Your task to perform on an android device: Check the news Image 0: 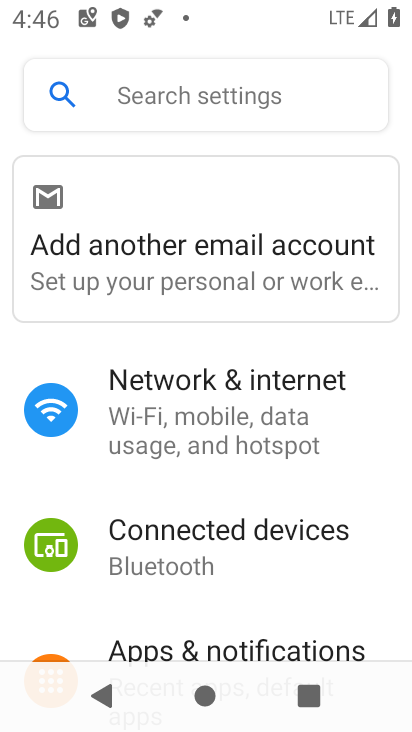
Step 0: press back button
Your task to perform on an android device: Check the news Image 1: 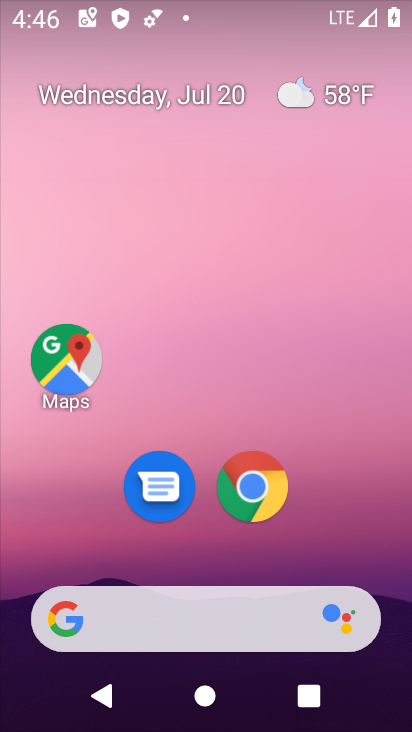
Step 1: click (192, 618)
Your task to perform on an android device: Check the news Image 2: 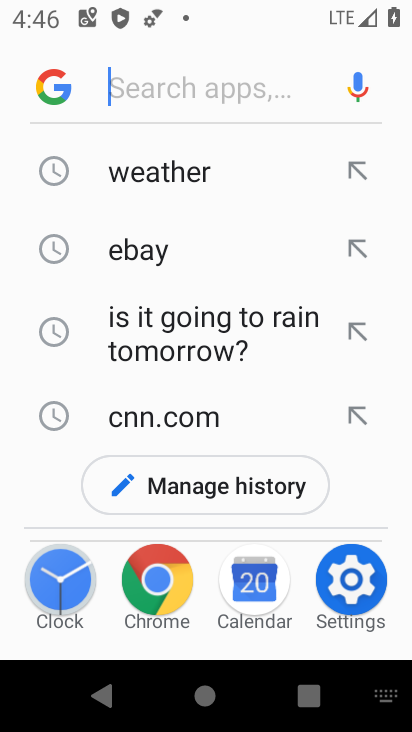
Step 2: click (121, 87)
Your task to perform on an android device: Check the news Image 3: 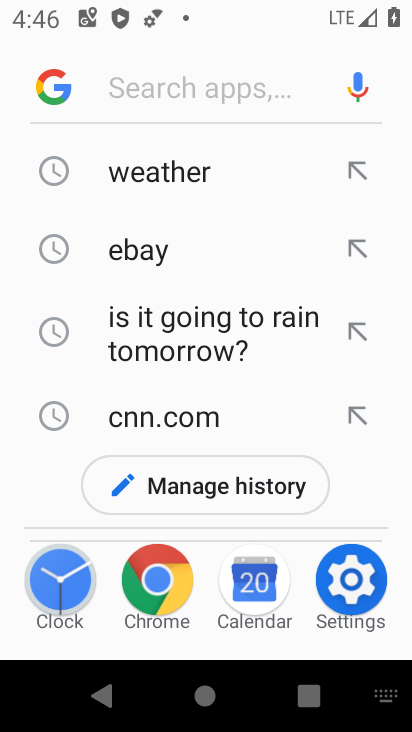
Step 3: type "news"
Your task to perform on an android device: Check the news Image 4: 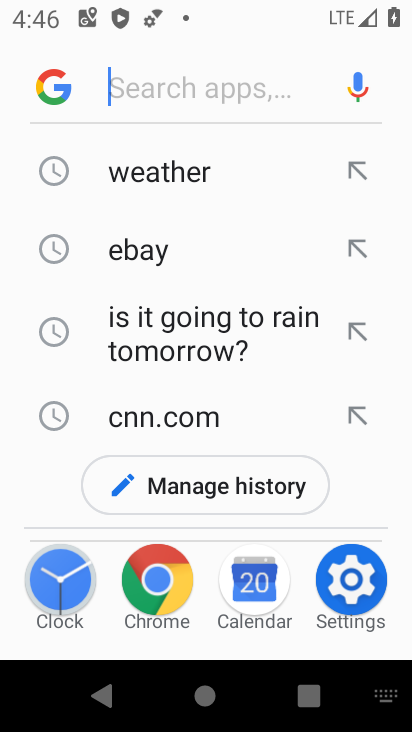
Step 4: click (203, 101)
Your task to perform on an android device: Check the news Image 5: 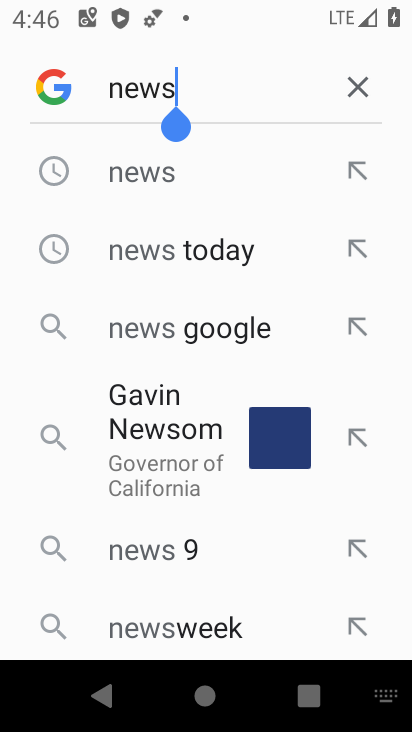
Step 5: type "news"
Your task to perform on an android device: Check the news Image 6: 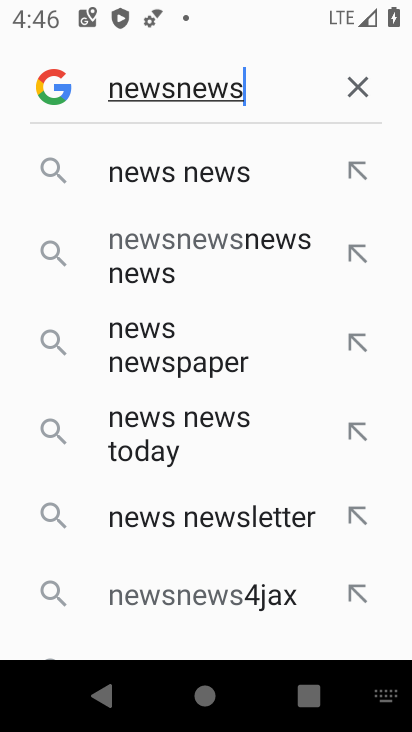
Step 6: click (132, 169)
Your task to perform on an android device: Check the news Image 7: 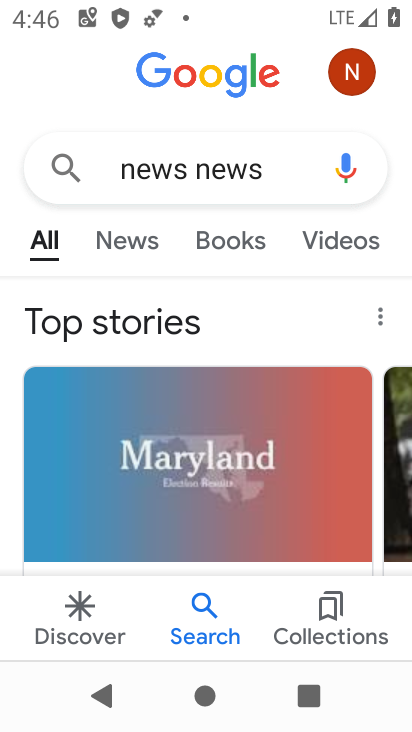
Step 7: task complete